Your task to perform on an android device: find photos in the google photos app Image 0: 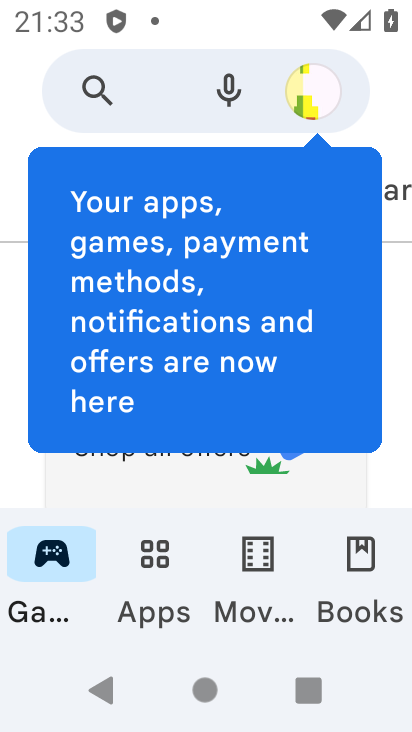
Step 0: press home button
Your task to perform on an android device: find photos in the google photos app Image 1: 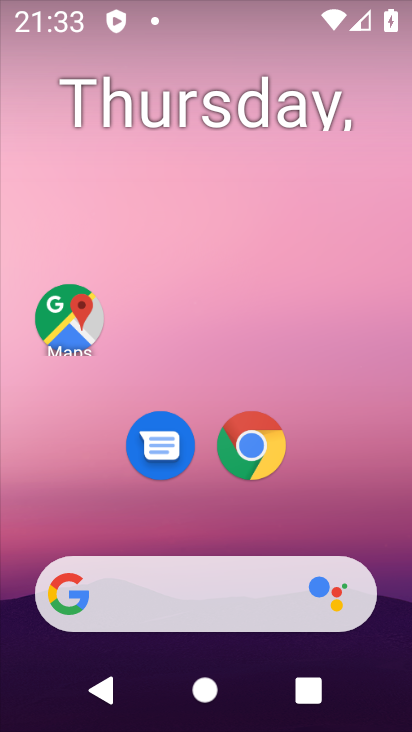
Step 1: drag from (22, 576) to (170, 170)
Your task to perform on an android device: find photos in the google photos app Image 2: 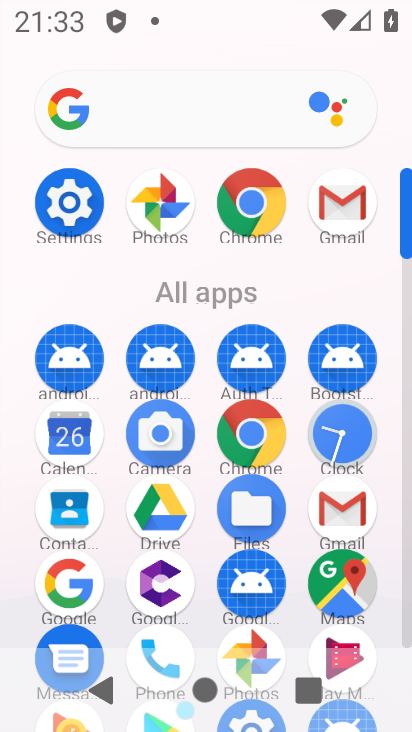
Step 2: click (148, 197)
Your task to perform on an android device: find photos in the google photos app Image 3: 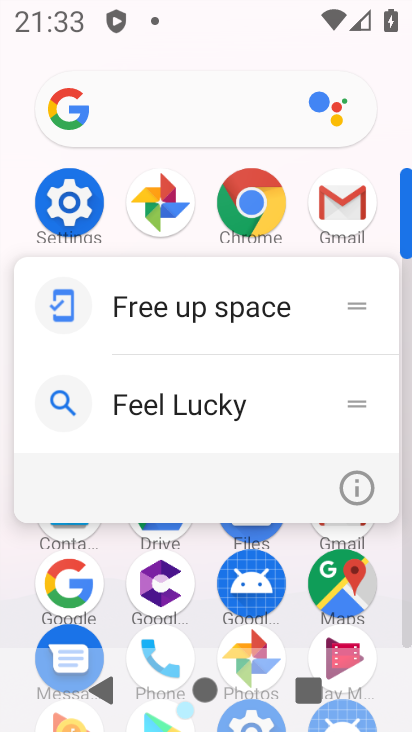
Step 3: click (149, 195)
Your task to perform on an android device: find photos in the google photos app Image 4: 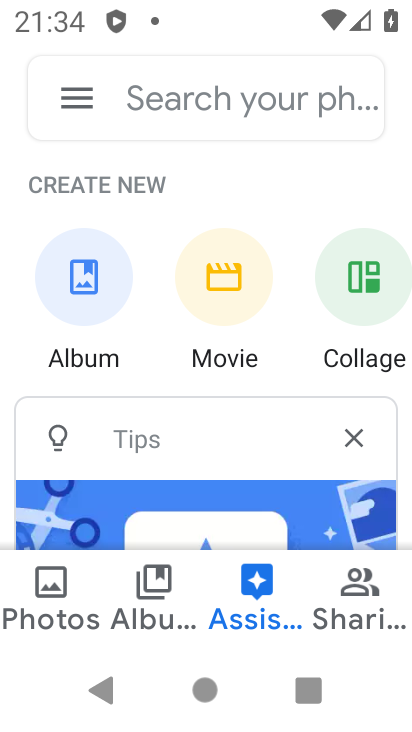
Step 4: click (49, 584)
Your task to perform on an android device: find photos in the google photos app Image 5: 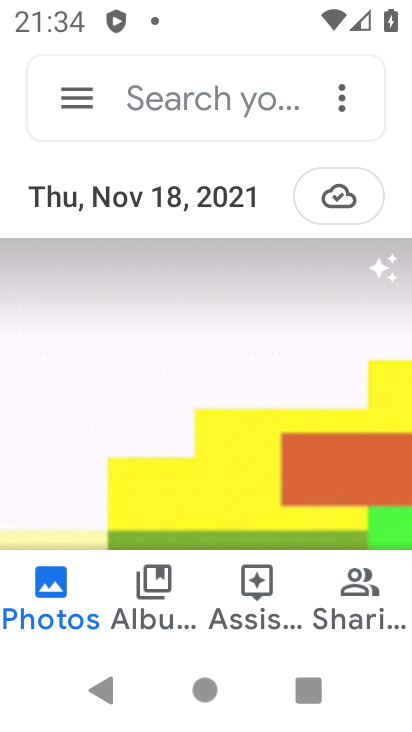
Step 5: task complete